Your task to perform on an android device: What's on my calendar today? Image 0: 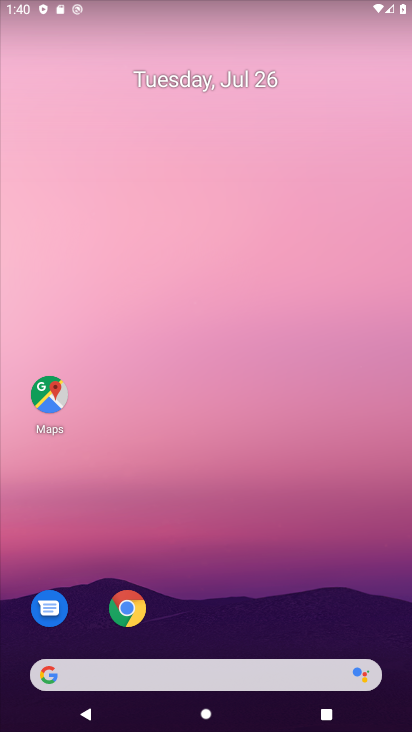
Step 0: press home button
Your task to perform on an android device: What's on my calendar today? Image 1: 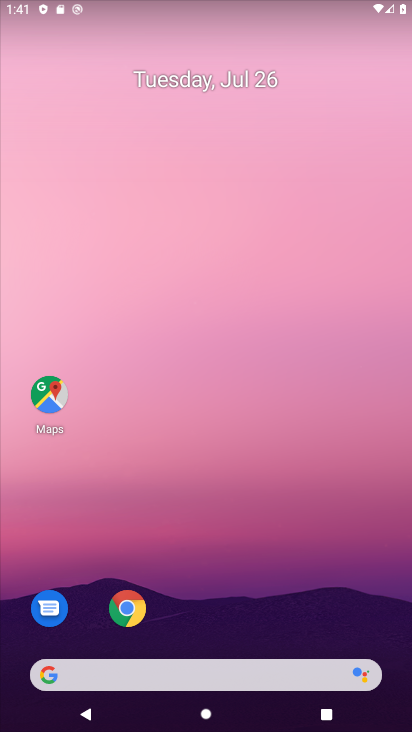
Step 1: drag from (233, 125) to (236, 8)
Your task to perform on an android device: What's on my calendar today? Image 2: 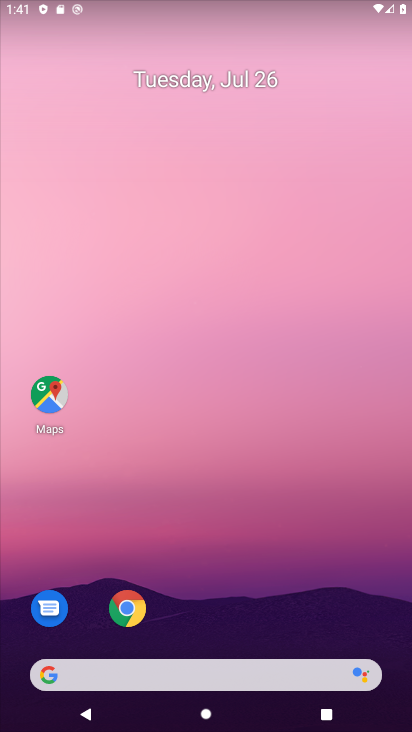
Step 2: drag from (263, 634) to (278, 12)
Your task to perform on an android device: What's on my calendar today? Image 3: 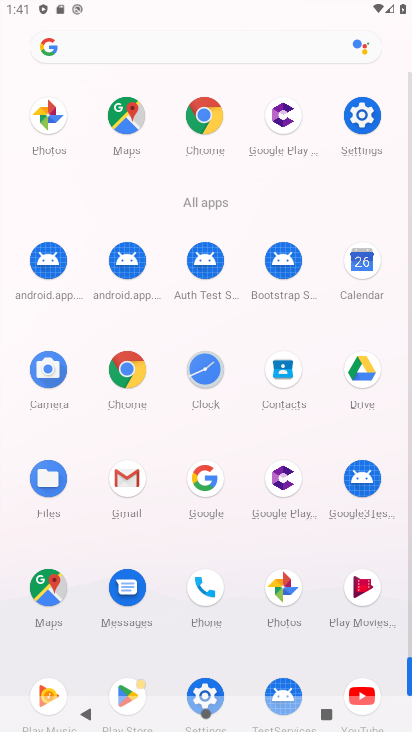
Step 3: click (367, 261)
Your task to perform on an android device: What's on my calendar today? Image 4: 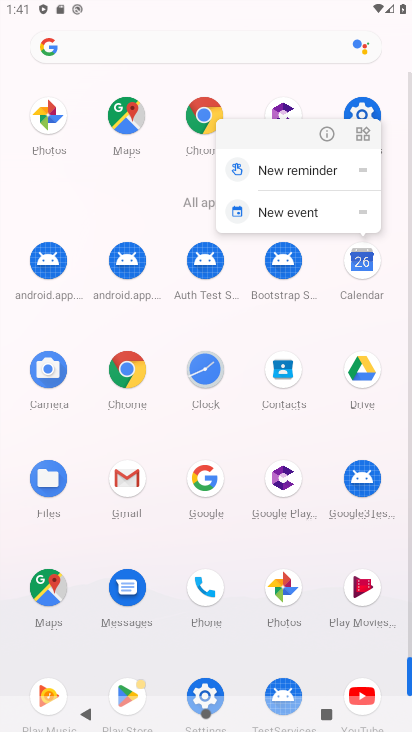
Step 4: click (367, 261)
Your task to perform on an android device: What's on my calendar today? Image 5: 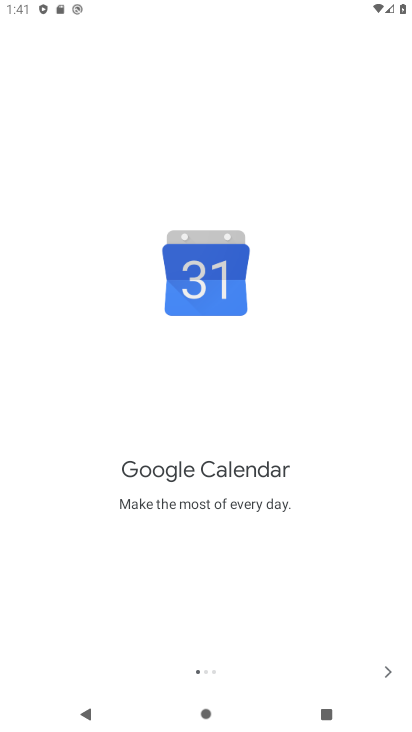
Step 5: click (389, 672)
Your task to perform on an android device: What's on my calendar today? Image 6: 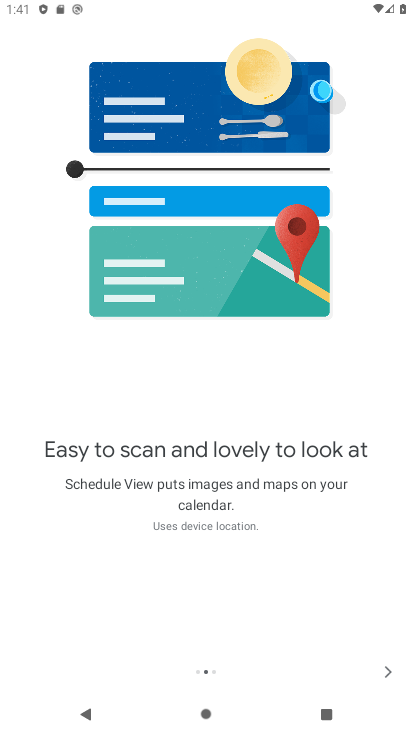
Step 6: click (389, 672)
Your task to perform on an android device: What's on my calendar today? Image 7: 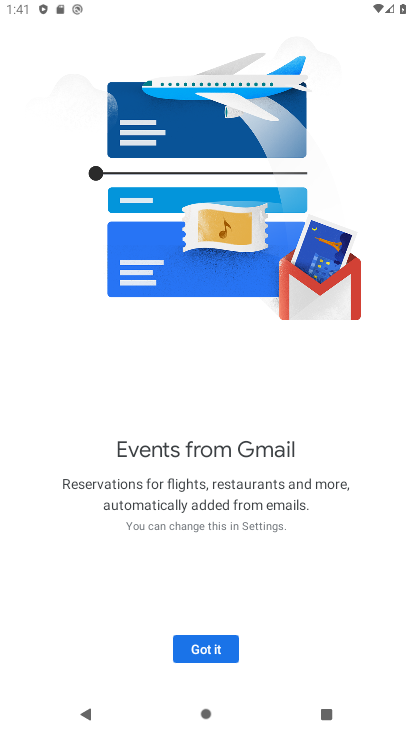
Step 7: click (389, 672)
Your task to perform on an android device: What's on my calendar today? Image 8: 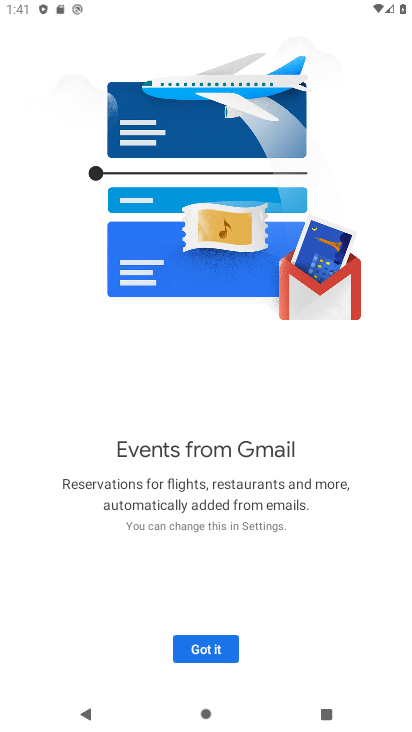
Step 8: click (211, 647)
Your task to perform on an android device: What's on my calendar today? Image 9: 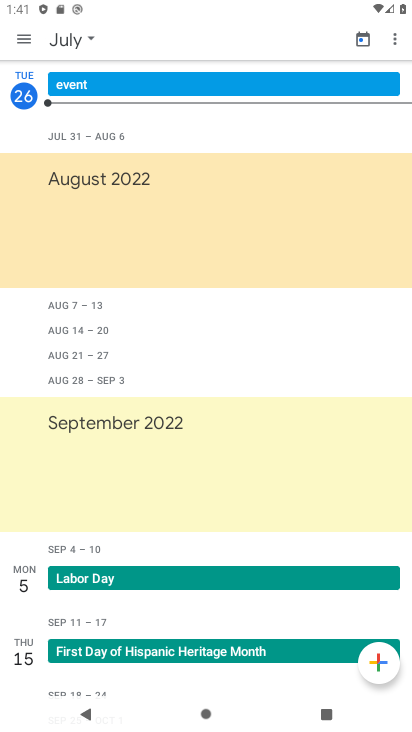
Step 9: click (72, 44)
Your task to perform on an android device: What's on my calendar today? Image 10: 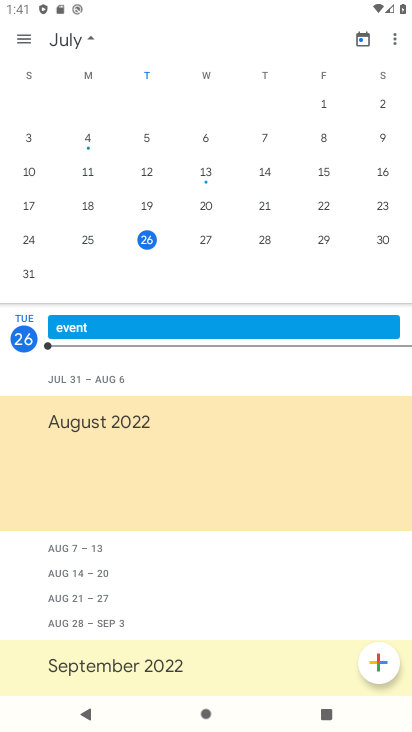
Step 10: click (141, 241)
Your task to perform on an android device: What's on my calendar today? Image 11: 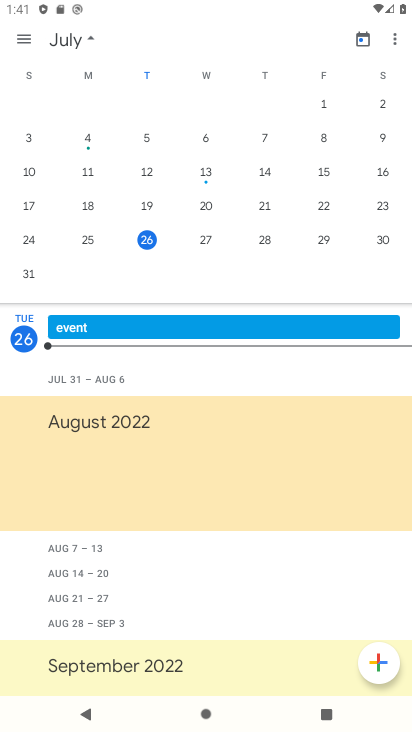
Step 11: task complete